Your task to perform on an android device: Go to accessibility settings Image 0: 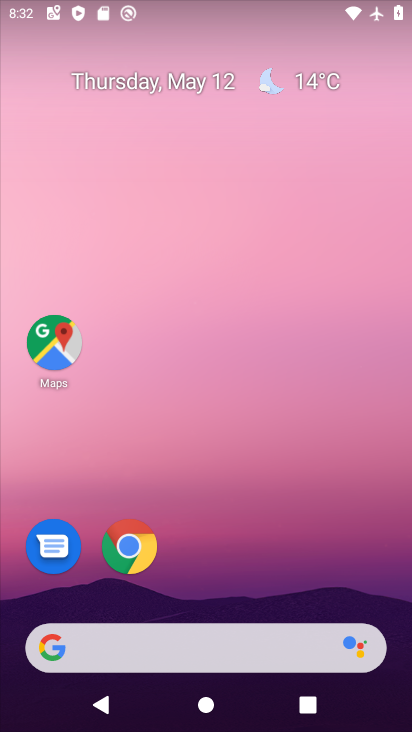
Step 0: drag from (204, 653) to (371, 134)
Your task to perform on an android device: Go to accessibility settings Image 1: 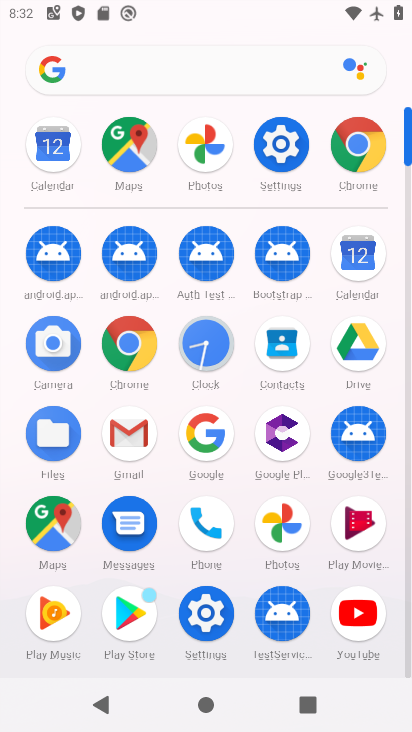
Step 1: click (277, 149)
Your task to perform on an android device: Go to accessibility settings Image 2: 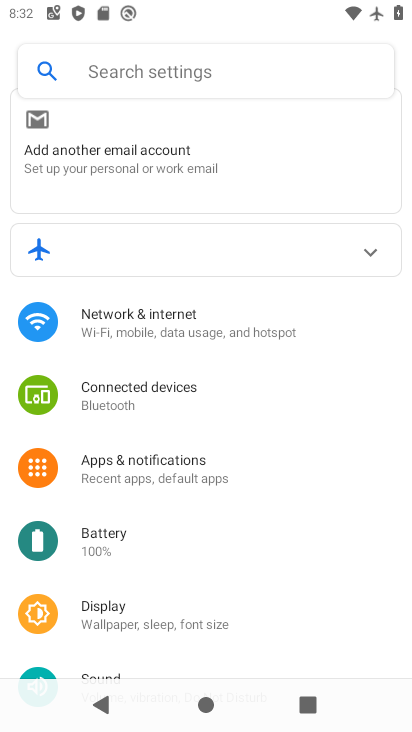
Step 2: drag from (178, 592) to (339, 137)
Your task to perform on an android device: Go to accessibility settings Image 3: 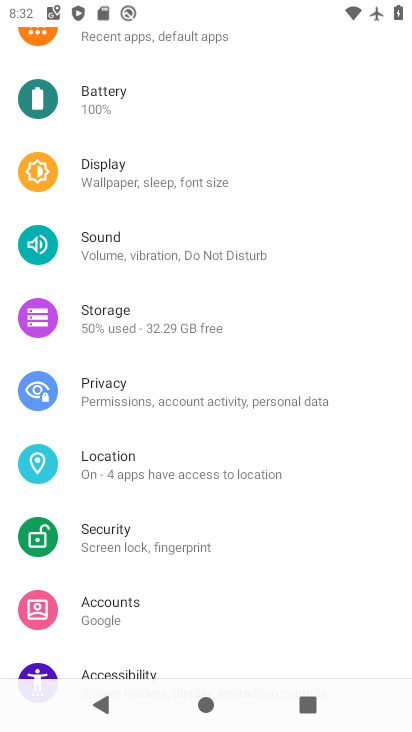
Step 3: drag from (224, 615) to (358, 301)
Your task to perform on an android device: Go to accessibility settings Image 4: 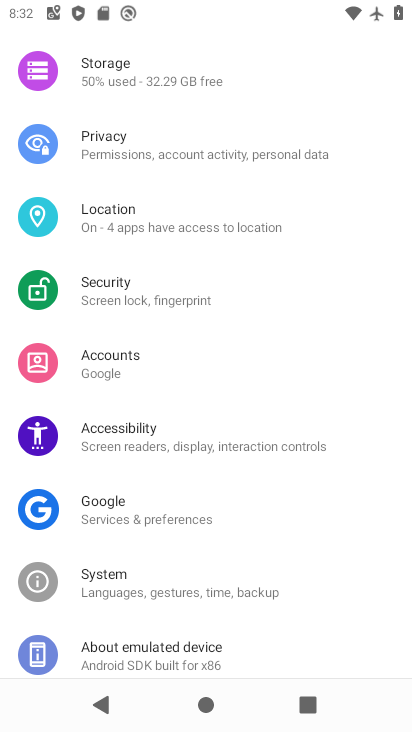
Step 4: click (121, 443)
Your task to perform on an android device: Go to accessibility settings Image 5: 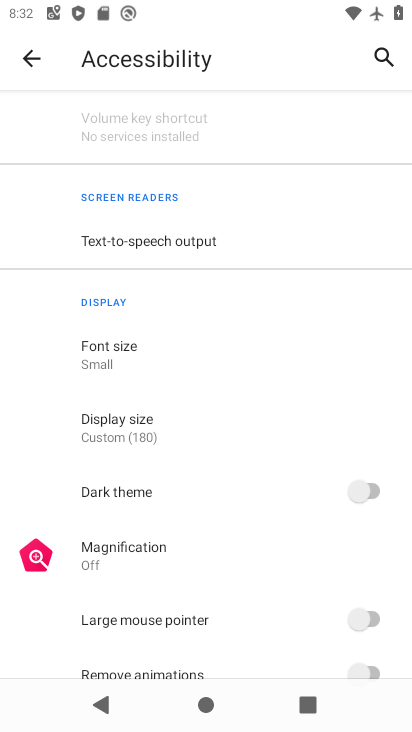
Step 5: task complete